Your task to perform on an android device: Open Google Chrome Image 0: 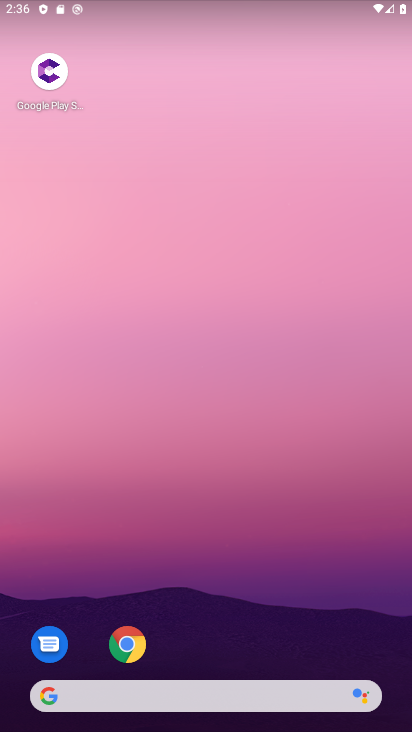
Step 0: click (125, 650)
Your task to perform on an android device: Open Google Chrome Image 1: 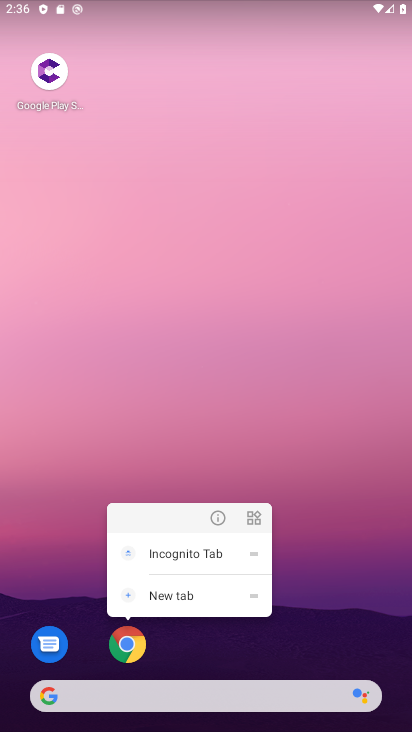
Step 1: click (125, 650)
Your task to perform on an android device: Open Google Chrome Image 2: 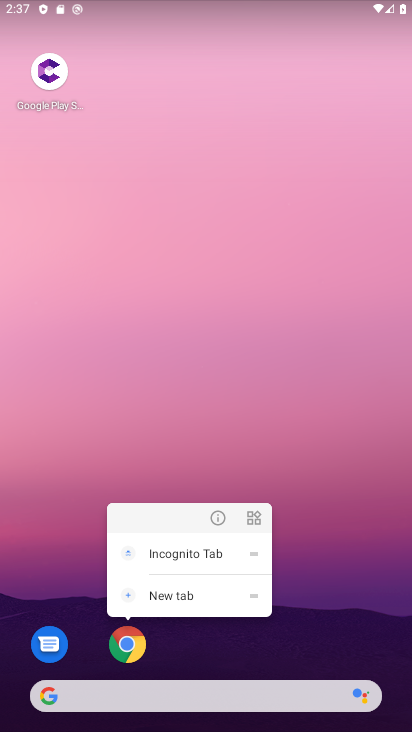
Step 2: click (139, 649)
Your task to perform on an android device: Open Google Chrome Image 3: 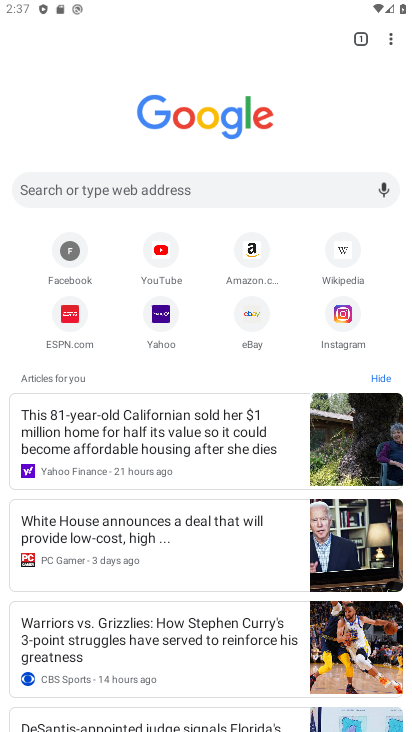
Step 3: task complete